Your task to perform on an android device: toggle improve location accuracy Image 0: 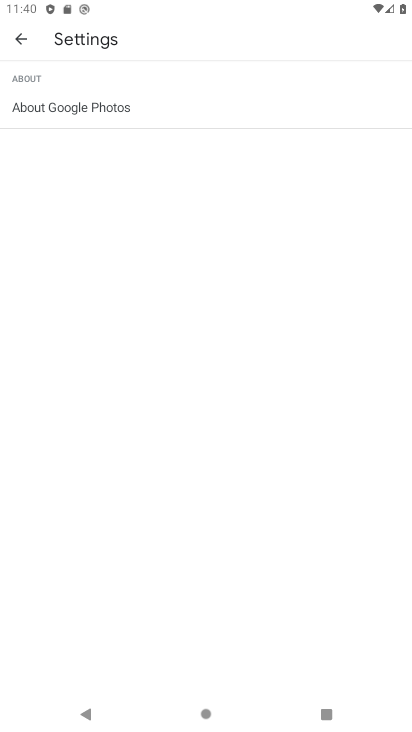
Step 0: drag from (239, 455) to (289, 291)
Your task to perform on an android device: toggle improve location accuracy Image 1: 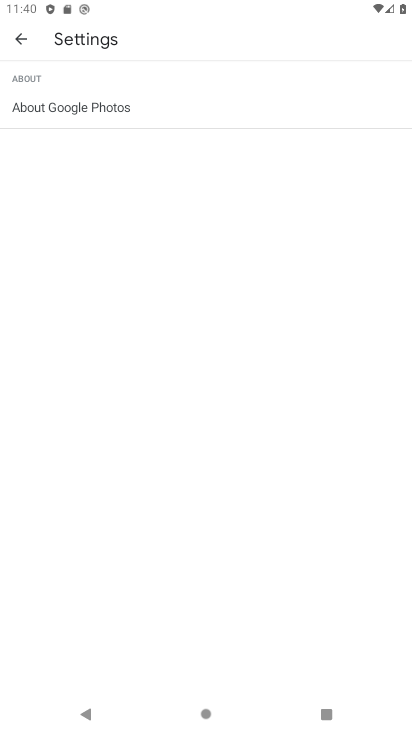
Step 1: press home button
Your task to perform on an android device: toggle improve location accuracy Image 2: 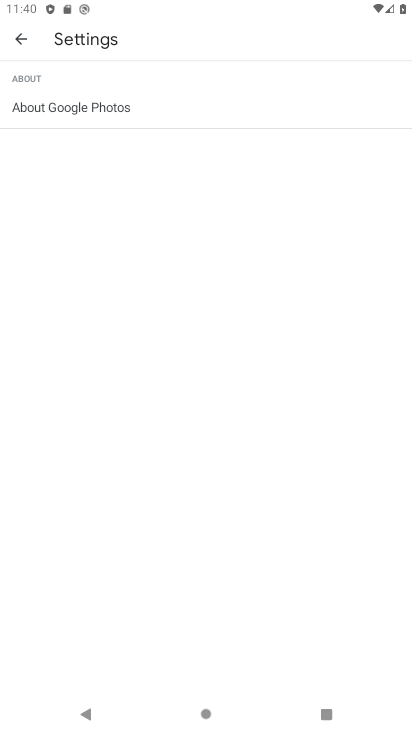
Step 2: press home button
Your task to perform on an android device: toggle improve location accuracy Image 3: 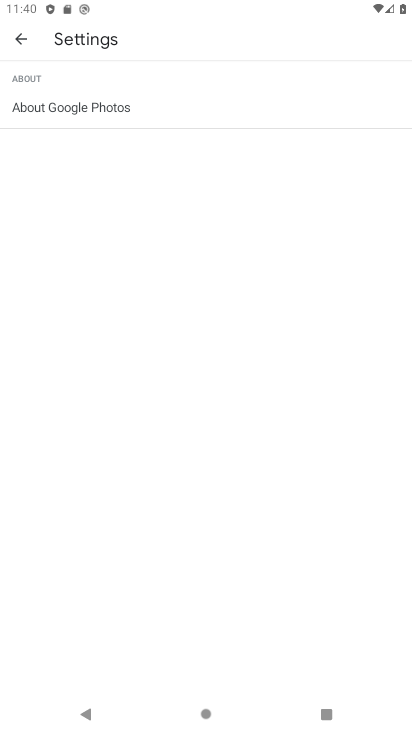
Step 3: click (189, 182)
Your task to perform on an android device: toggle improve location accuracy Image 4: 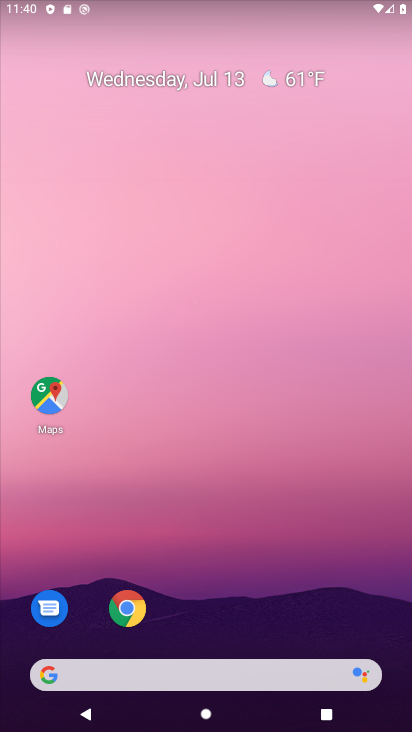
Step 4: drag from (187, 611) to (238, 105)
Your task to perform on an android device: toggle improve location accuracy Image 5: 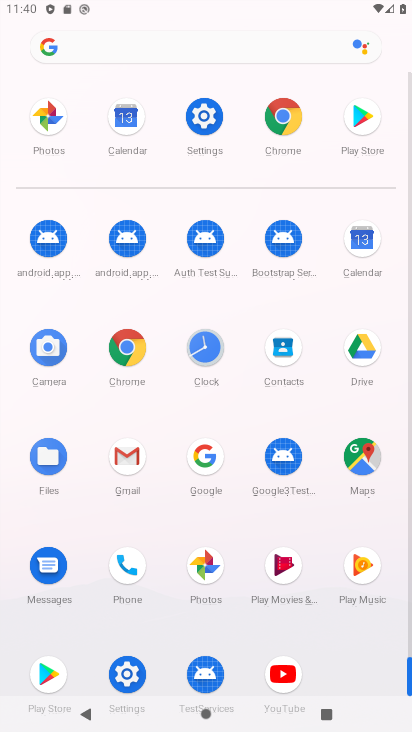
Step 5: drag from (175, 614) to (198, 277)
Your task to perform on an android device: toggle improve location accuracy Image 6: 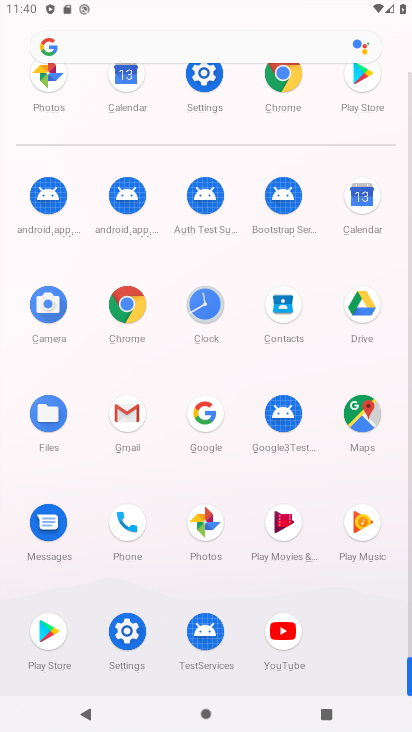
Step 6: click (195, 87)
Your task to perform on an android device: toggle improve location accuracy Image 7: 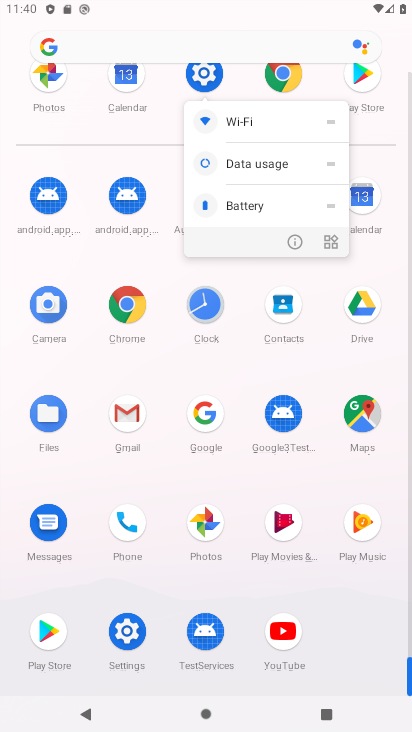
Step 7: click (301, 243)
Your task to perform on an android device: toggle improve location accuracy Image 8: 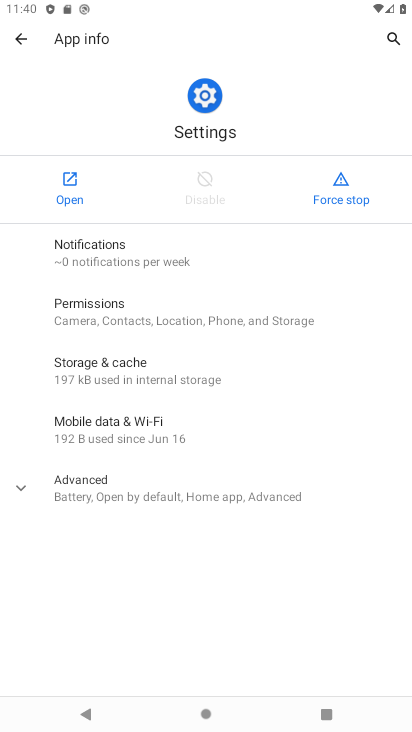
Step 8: click (71, 182)
Your task to perform on an android device: toggle improve location accuracy Image 9: 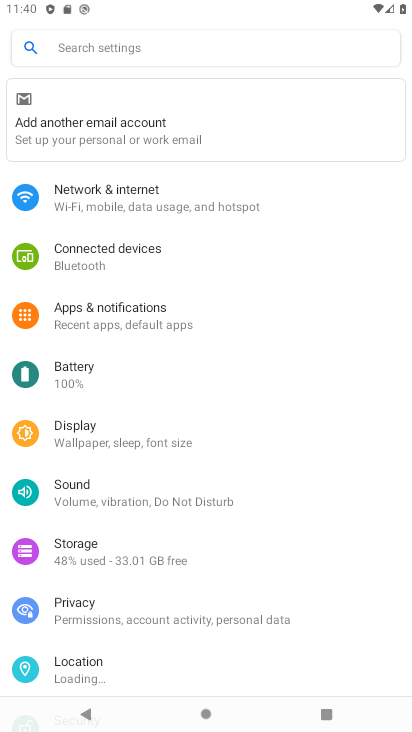
Step 9: click (105, 665)
Your task to perform on an android device: toggle improve location accuracy Image 10: 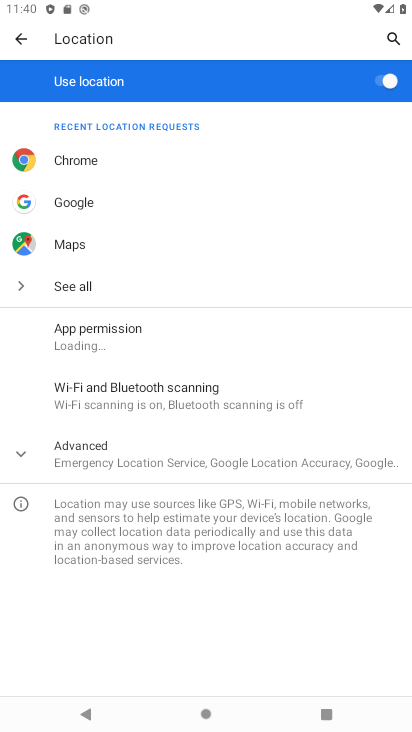
Step 10: drag from (133, 523) to (146, 321)
Your task to perform on an android device: toggle improve location accuracy Image 11: 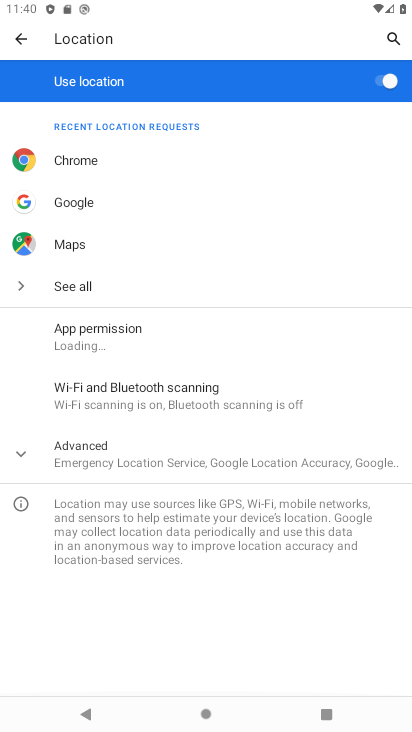
Step 11: click (110, 448)
Your task to perform on an android device: toggle improve location accuracy Image 12: 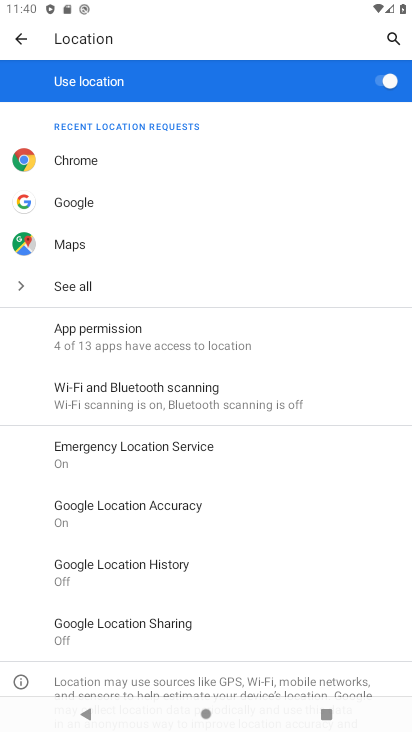
Step 12: drag from (211, 484) to (211, 333)
Your task to perform on an android device: toggle improve location accuracy Image 13: 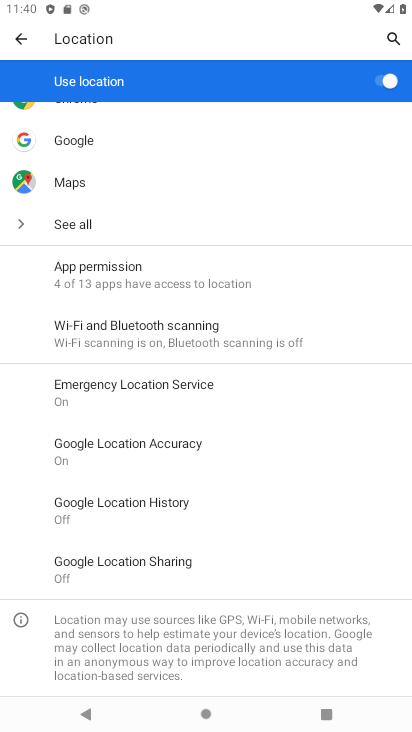
Step 13: drag from (172, 565) to (190, 353)
Your task to perform on an android device: toggle improve location accuracy Image 14: 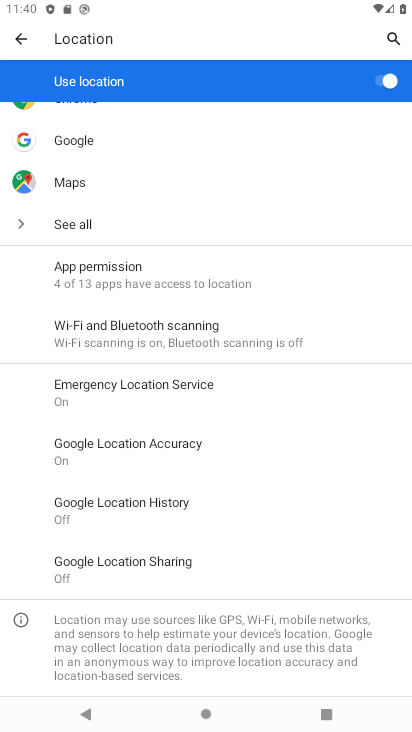
Step 14: click (185, 438)
Your task to perform on an android device: toggle improve location accuracy Image 15: 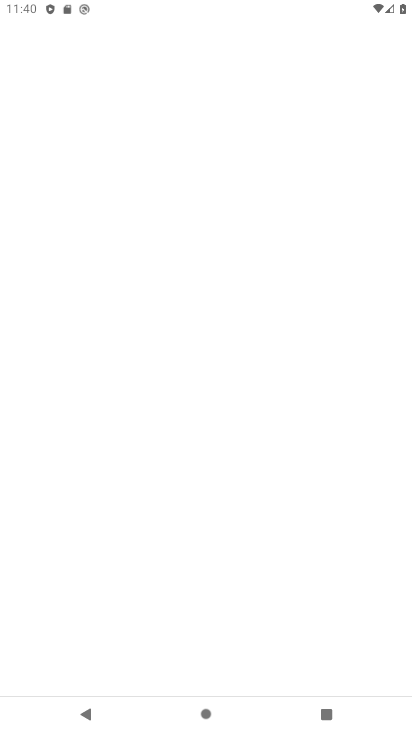
Step 15: drag from (184, 589) to (226, 297)
Your task to perform on an android device: toggle improve location accuracy Image 16: 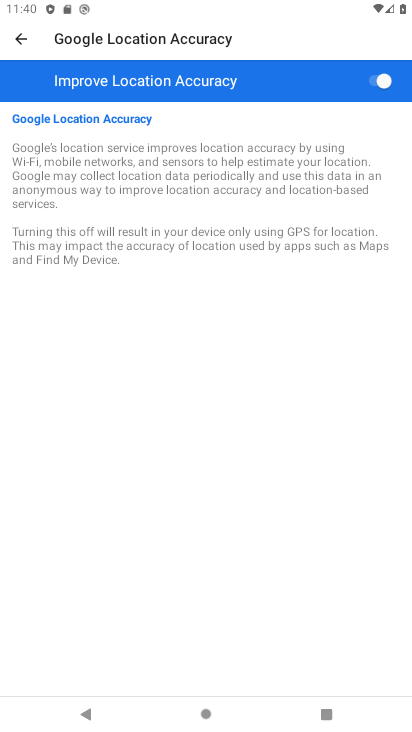
Step 16: drag from (233, 416) to (256, 237)
Your task to perform on an android device: toggle improve location accuracy Image 17: 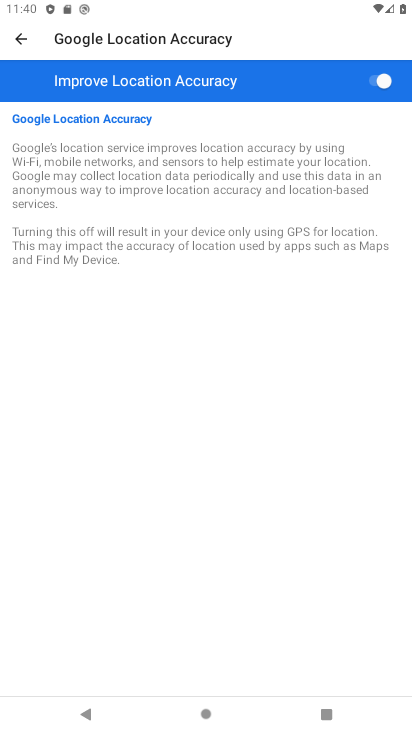
Step 17: drag from (291, 267) to (296, 139)
Your task to perform on an android device: toggle improve location accuracy Image 18: 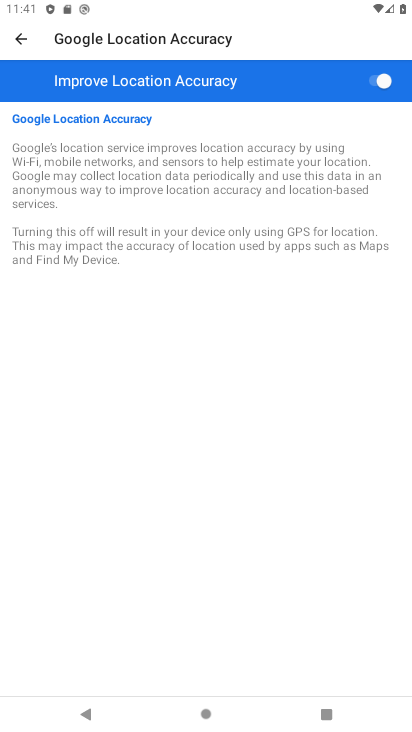
Step 18: click (377, 82)
Your task to perform on an android device: toggle improve location accuracy Image 19: 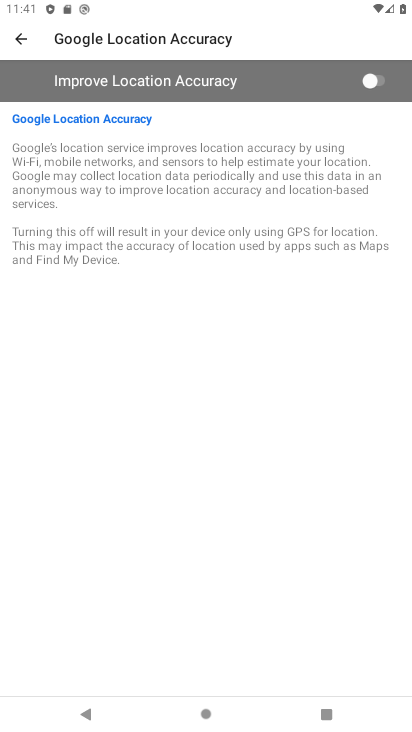
Step 19: task complete